Your task to perform on an android device: change notifications settings Image 0: 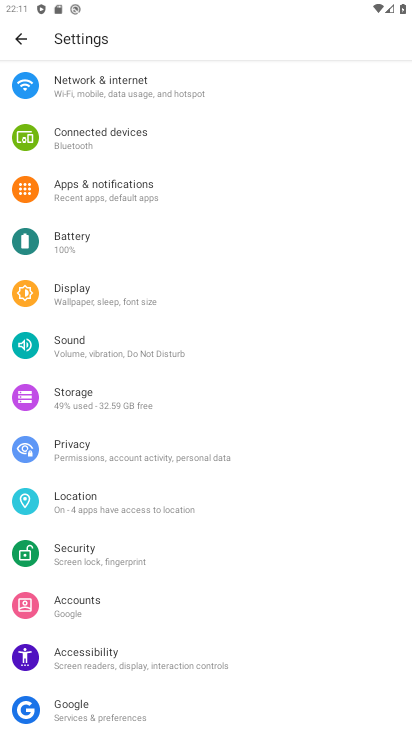
Step 0: click (95, 190)
Your task to perform on an android device: change notifications settings Image 1: 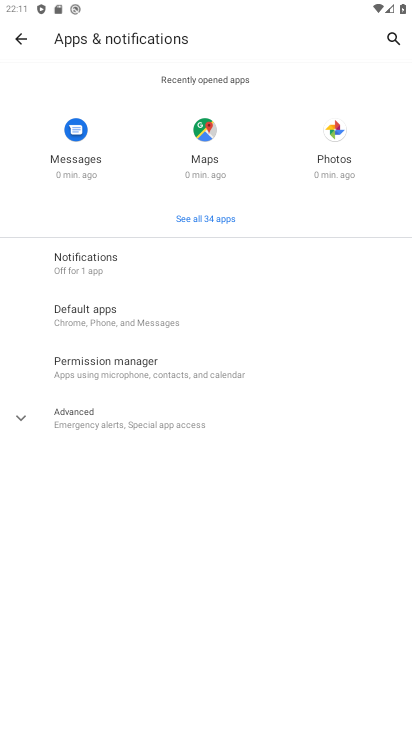
Step 1: click (123, 270)
Your task to perform on an android device: change notifications settings Image 2: 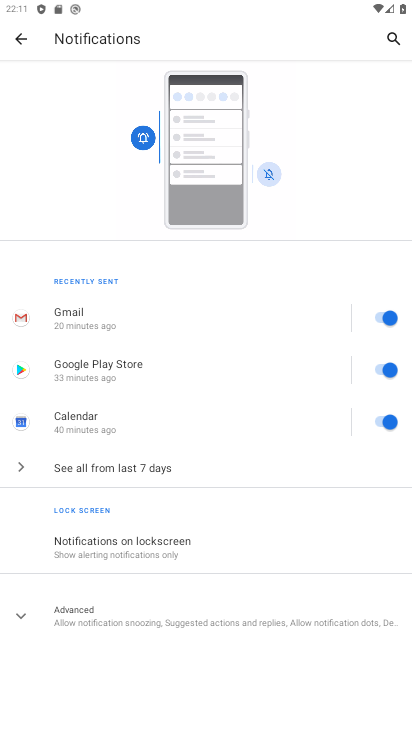
Step 2: task complete